Your task to perform on an android device: all mails in gmail Image 0: 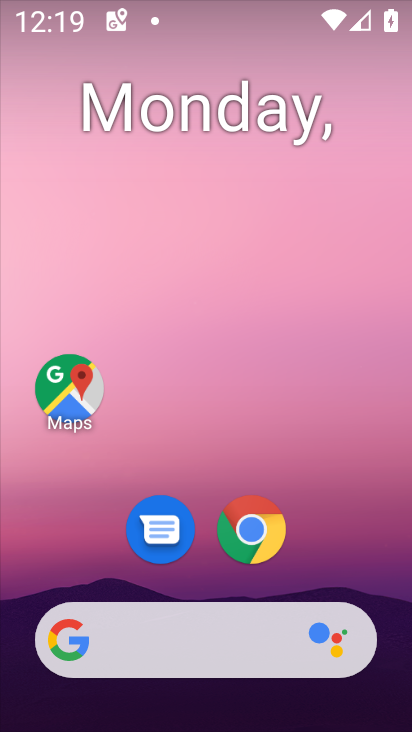
Step 0: drag from (244, 625) to (246, 30)
Your task to perform on an android device: all mails in gmail Image 1: 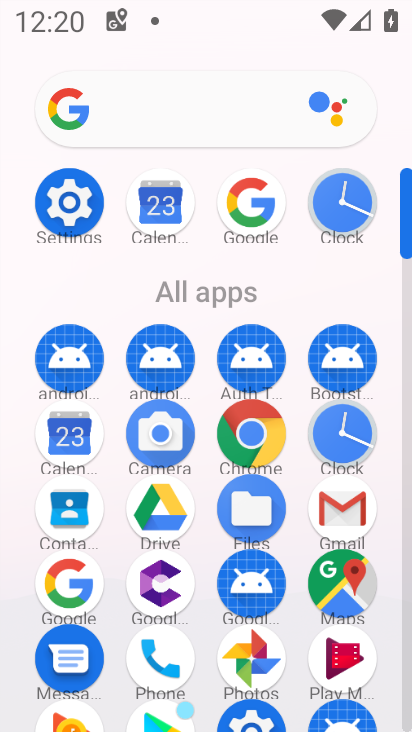
Step 1: click (343, 508)
Your task to perform on an android device: all mails in gmail Image 2: 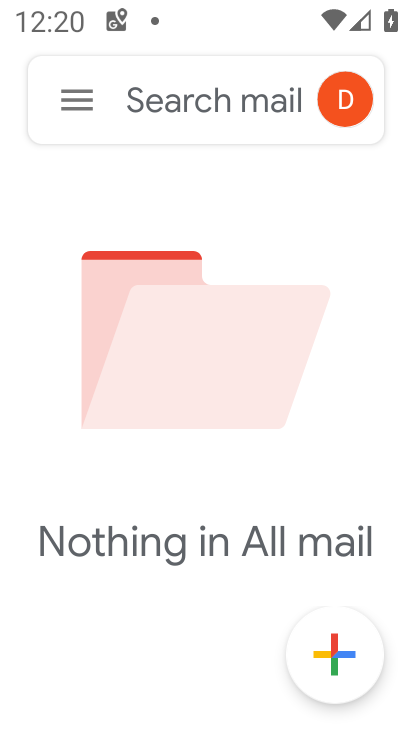
Step 2: task complete